Your task to perform on an android device: create a new album in the google photos Image 0: 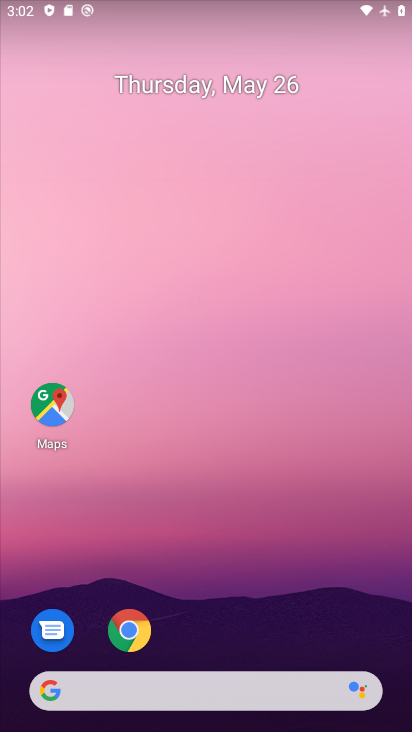
Step 0: drag from (248, 637) to (266, 168)
Your task to perform on an android device: create a new album in the google photos Image 1: 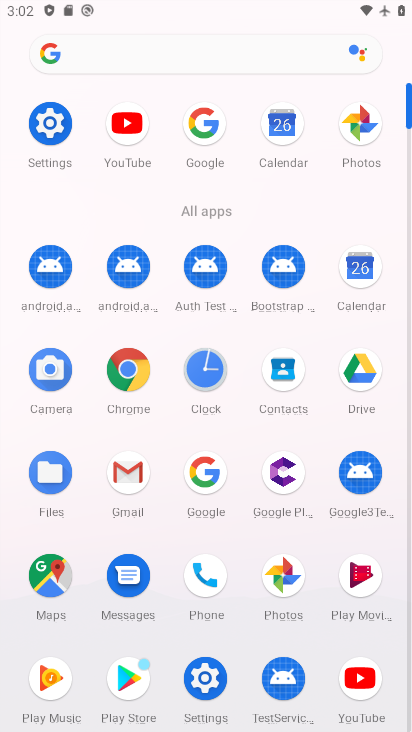
Step 1: click (361, 123)
Your task to perform on an android device: create a new album in the google photos Image 2: 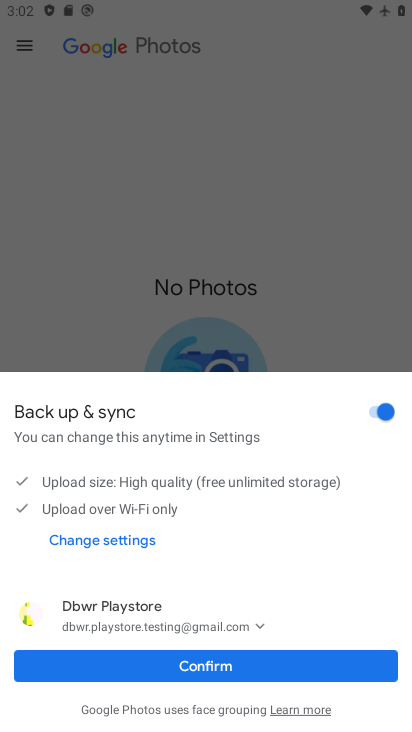
Step 2: click (196, 667)
Your task to perform on an android device: create a new album in the google photos Image 3: 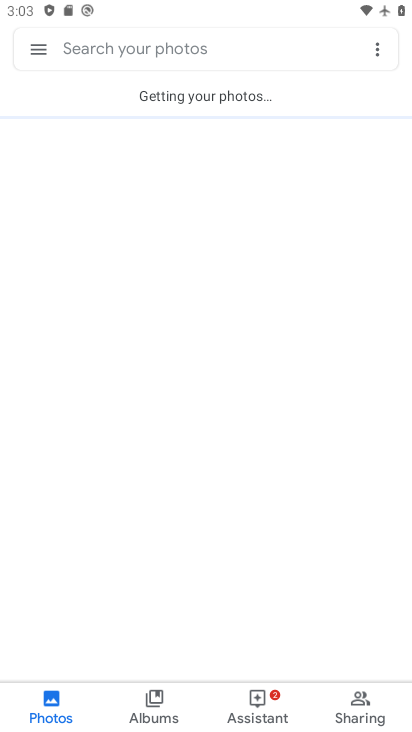
Step 3: click (379, 49)
Your task to perform on an android device: create a new album in the google photos Image 4: 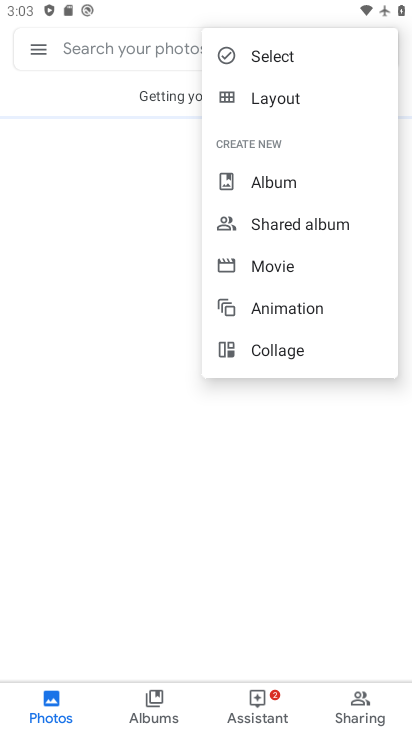
Step 4: click (273, 182)
Your task to perform on an android device: create a new album in the google photos Image 5: 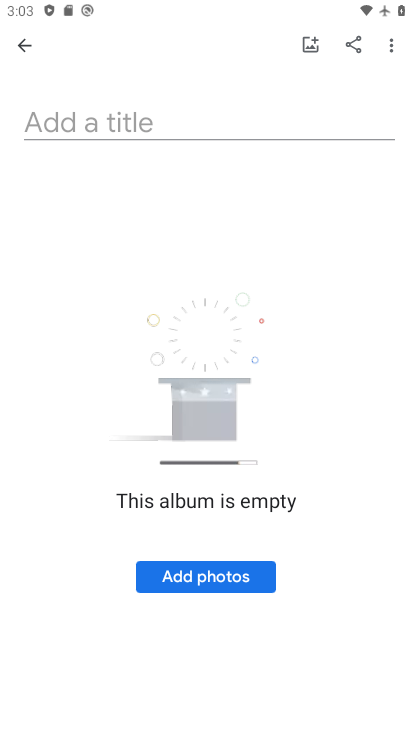
Step 5: click (251, 124)
Your task to perform on an android device: create a new album in the google photos Image 6: 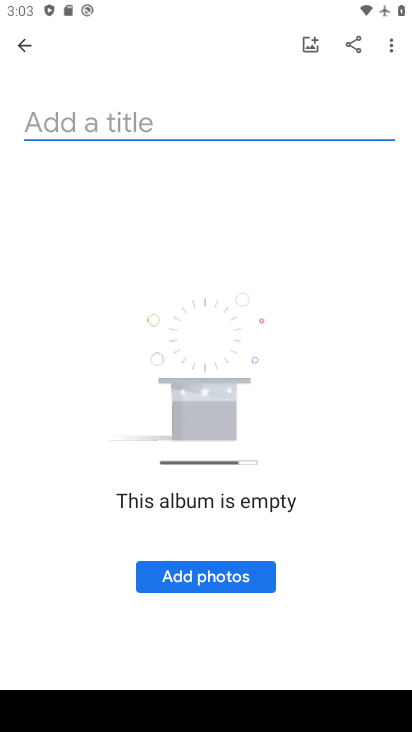
Step 6: type "Flower"
Your task to perform on an android device: create a new album in the google photos Image 7: 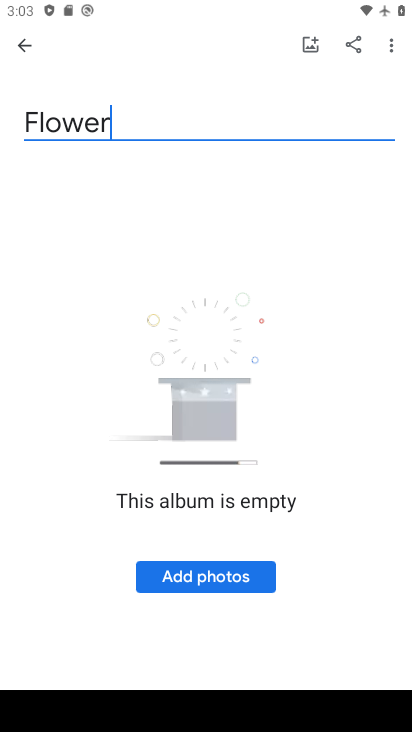
Step 7: click (210, 577)
Your task to perform on an android device: create a new album in the google photos Image 8: 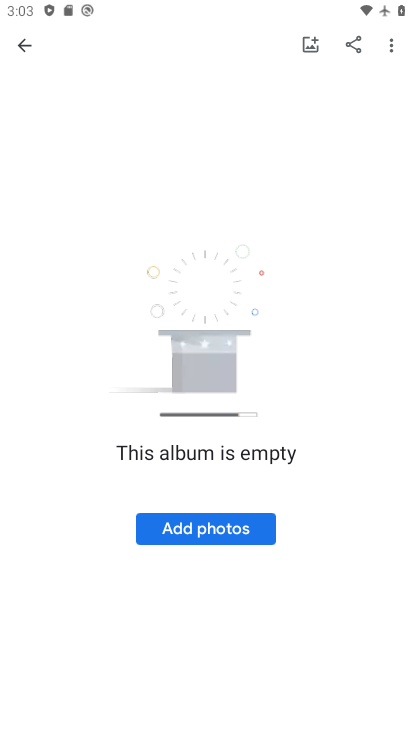
Step 8: click (206, 528)
Your task to perform on an android device: create a new album in the google photos Image 9: 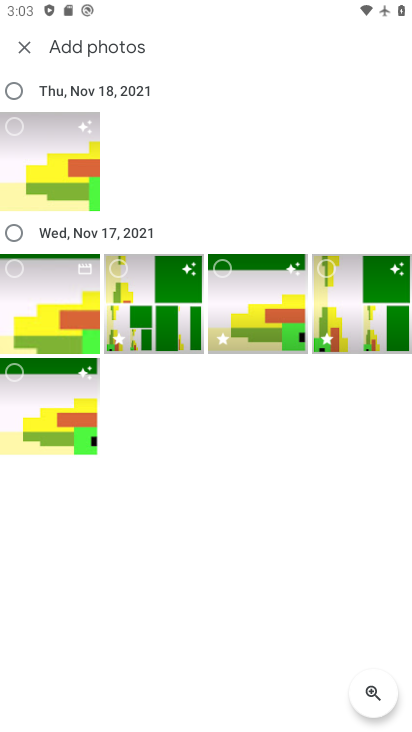
Step 9: click (13, 90)
Your task to perform on an android device: create a new album in the google photos Image 10: 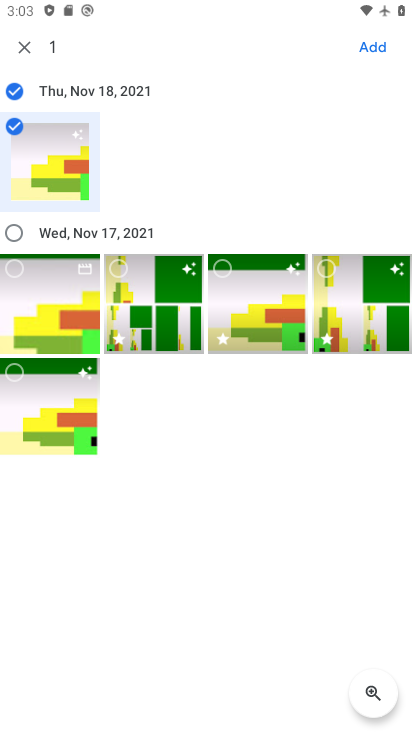
Step 10: click (371, 52)
Your task to perform on an android device: create a new album in the google photos Image 11: 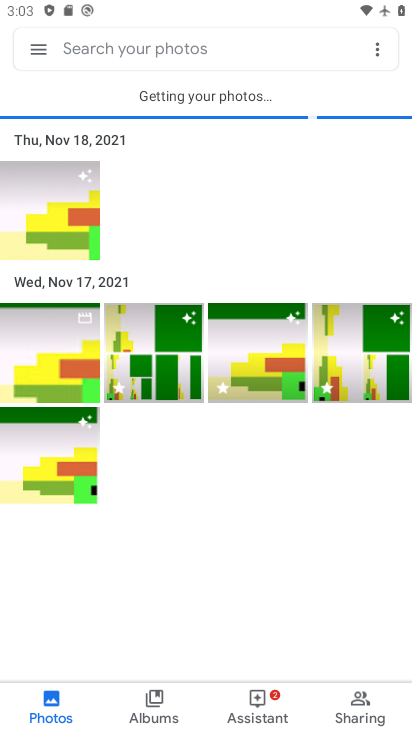
Step 11: task complete